Your task to perform on an android device: Do I have any events this weekend? Image 0: 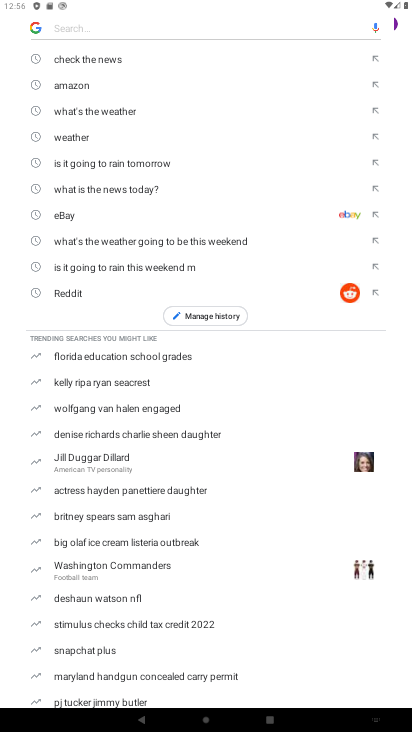
Step 0: press home button
Your task to perform on an android device: Do I have any events this weekend? Image 1: 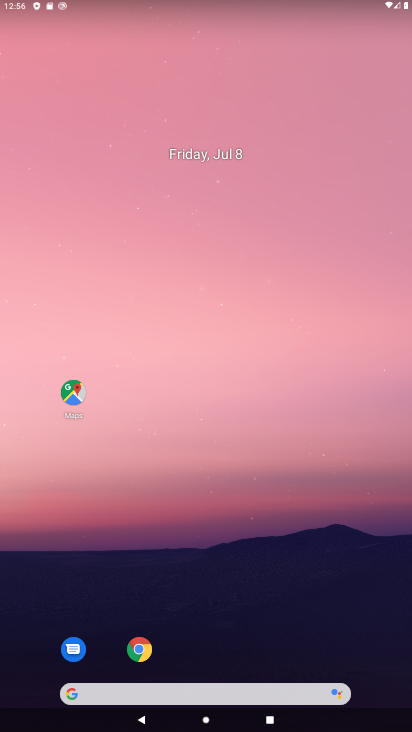
Step 1: drag from (93, 399) to (159, 70)
Your task to perform on an android device: Do I have any events this weekend? Image 2: 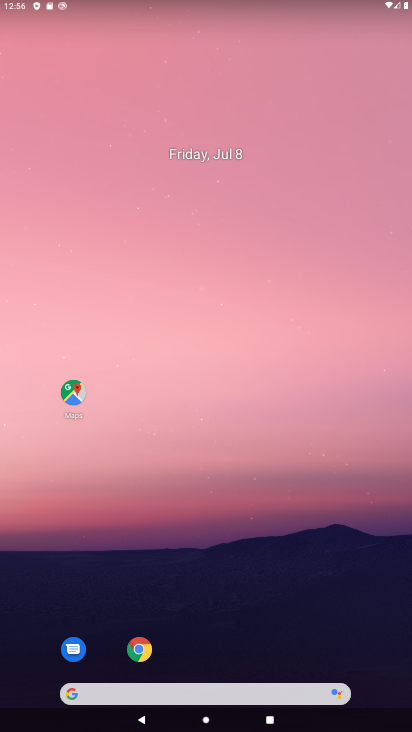
Step 2: drag from (30, 705) to (230, 4)
Your task to perform on an android device: Do I have any events this weekend? Image 3: 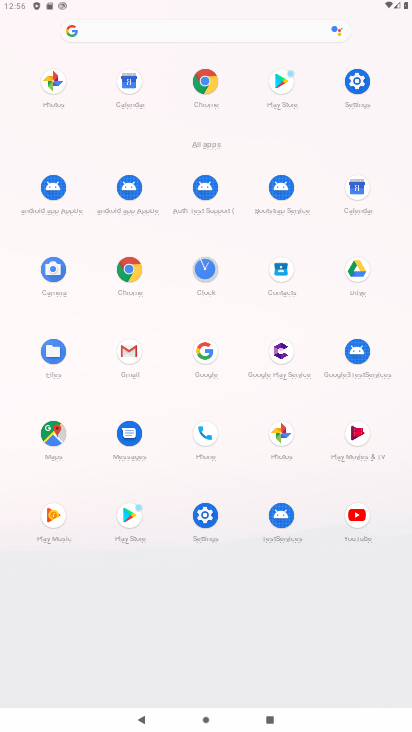
Step 3: click (346, 186)
Your task to perform on an android device: Do I have any events this weekend? Image 4: 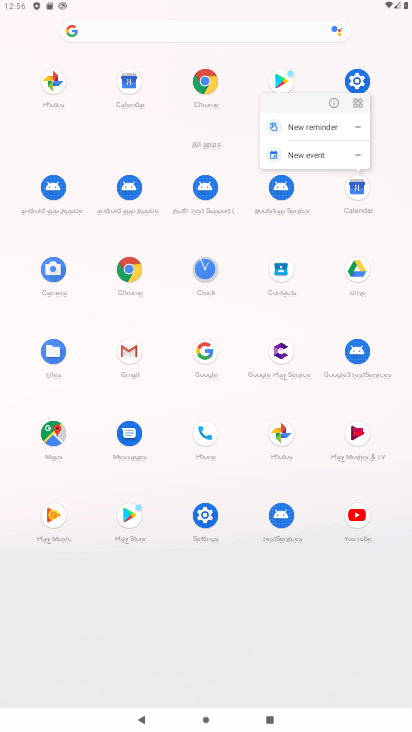
Step 4: click (366, 183)
Your task to perform on an android device: Do I have any events this weekend? Image 5: 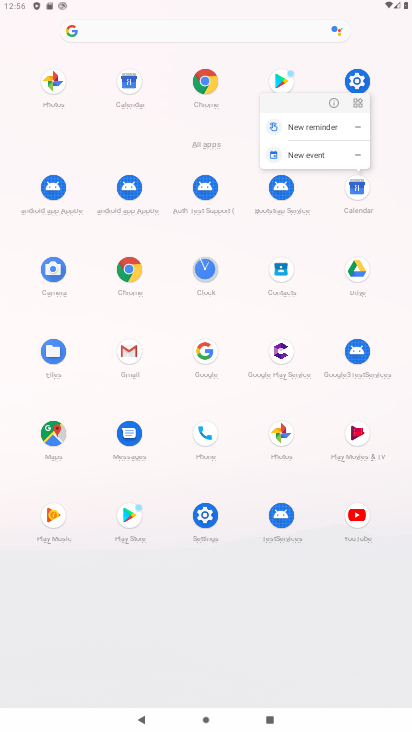
Step 5: click (347, 193)
Your task to perform on an android device: Do I have any events this weekend? Image 6: 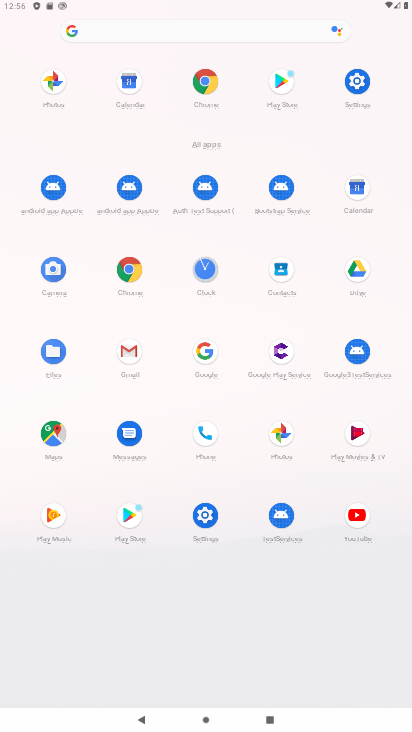
Step 6: click (362, 203)
Your task to perform on an android device: Do I have any events this weekend? Image 7: 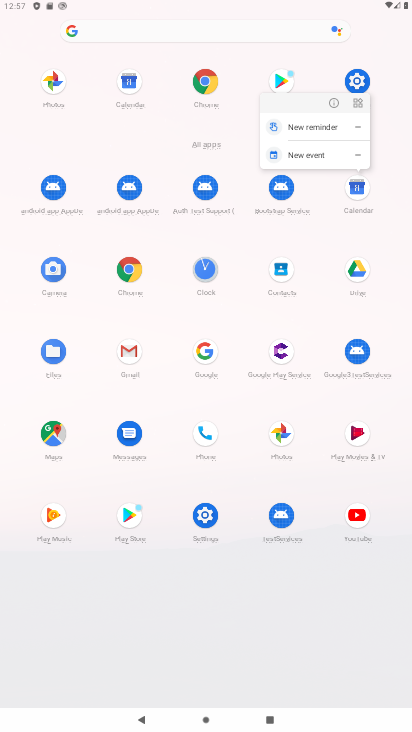
Step 7: task complete